Your task to perform on an android device: Go to internet settings Image 0: 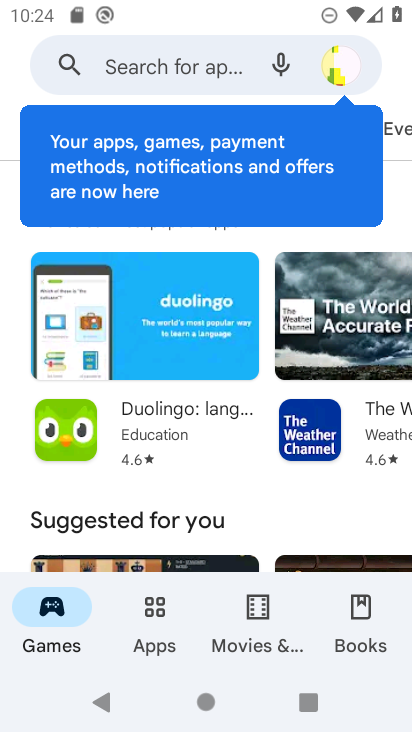
Step 0: press home button
Your task to perform on an android device: Go to internet settings Image 1: 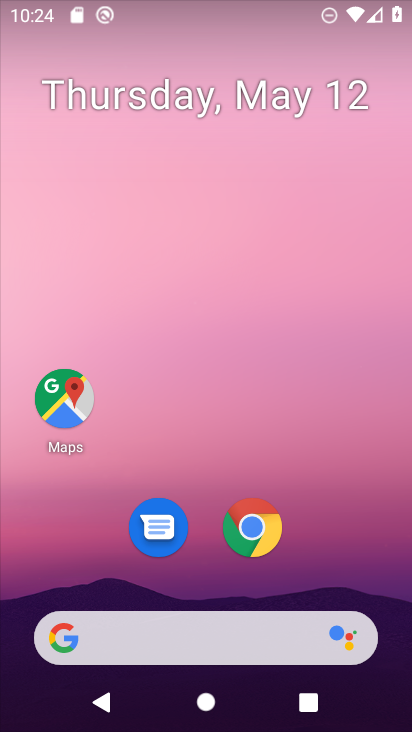
Step 1: drag from (335, 555) to (365, 112)
Your task to perform on an android device: Go to internet settings Image 2: 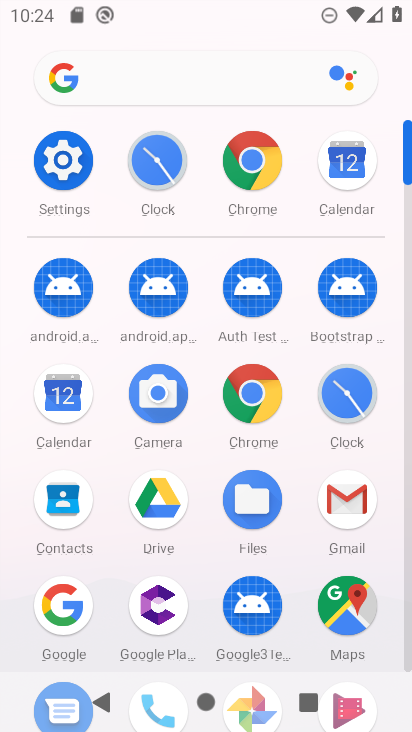
Step 2: click (46, 210)
Your task to perform on an android device: Go to internet settings Image 3: 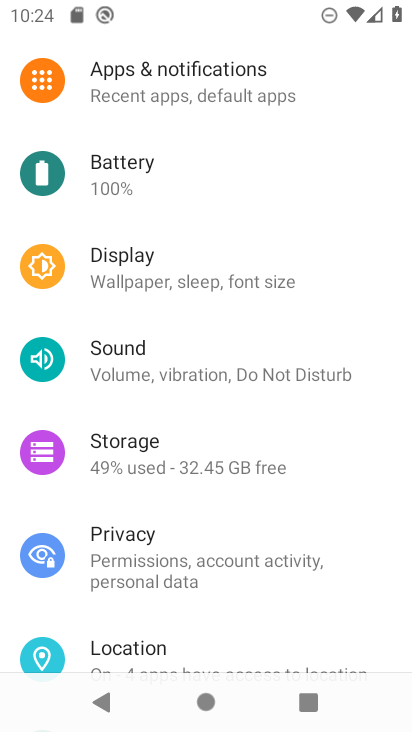
Step 3: drag from (237, 190) to (258, 578)
Your task to perform on an android device: Go to internet settings Image 4: 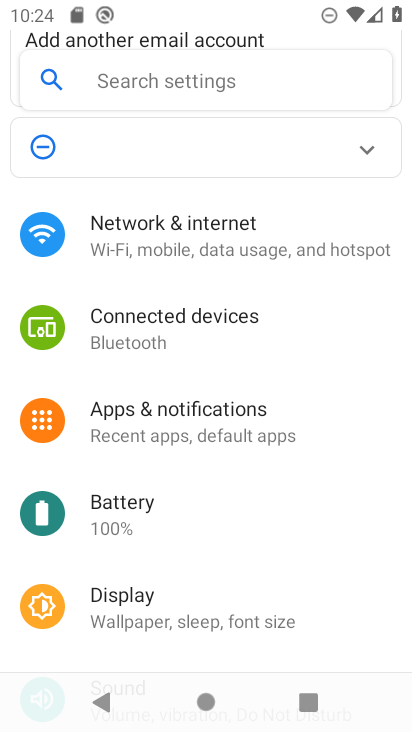
Step 4: click (220, 236)
Your task to perform on an android device: Go to internet settings Image 5: 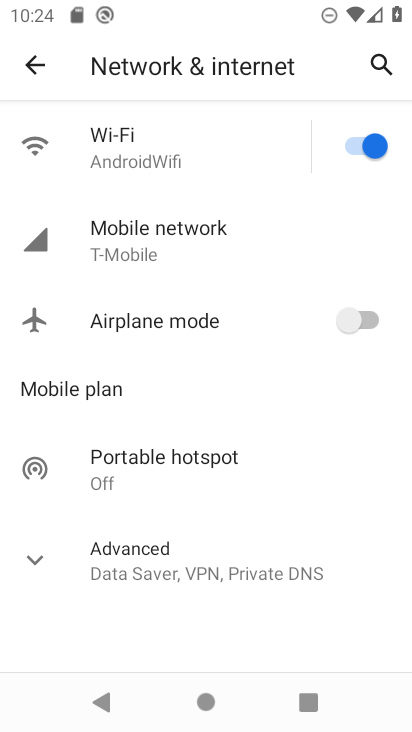
Step 5: task complete